Your task to perform on an android device: toggle location history Image 0: 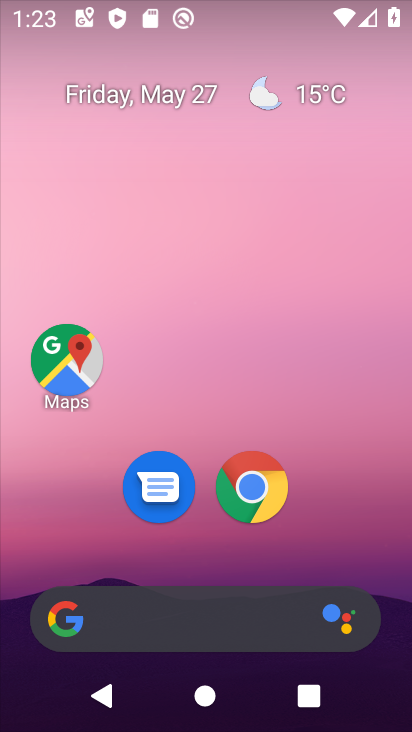
Step 0: drag from (213, 445) to (176, 154)
Your task to perform on an android device: toggle location history Image 1: 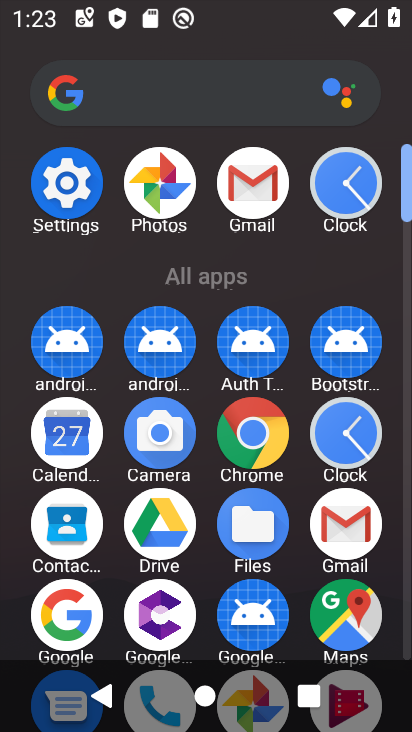
Step 1: click (55, 177)
Your task to perform on an android device: toggle location history Image 2: 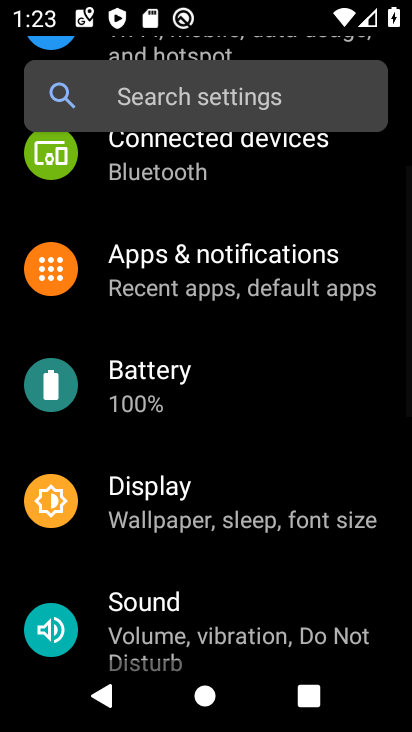
Step 2: click (55, 177)
Your task to perform on an android device: toggle location history Image 3: 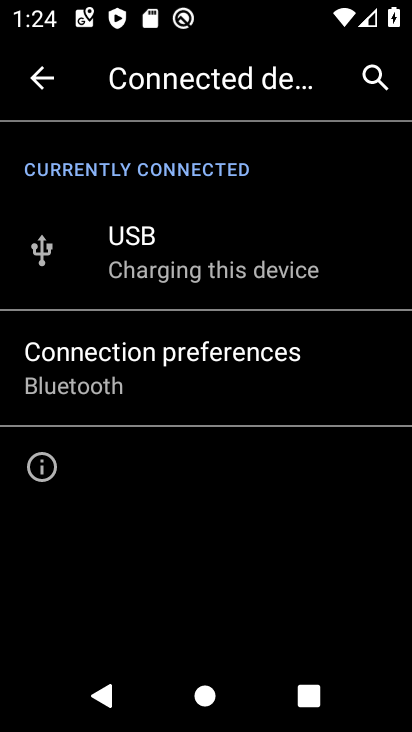
Step 3: click (45, 93)
Your task to perform on an android device: toggle location history Image 4: 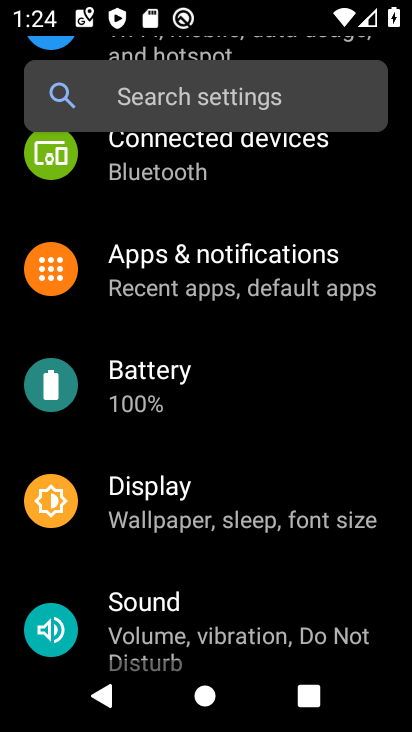
Step 4: drag from (181, 609) to (167, 235)
Your task to perform on an android device: toggle location history Image 5: 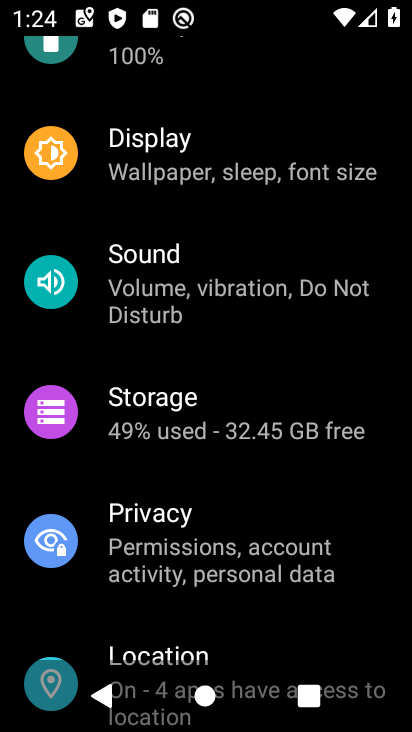
Step 5: click (189, 658)
Your task to perform on an android device: toggle location history Image 6: 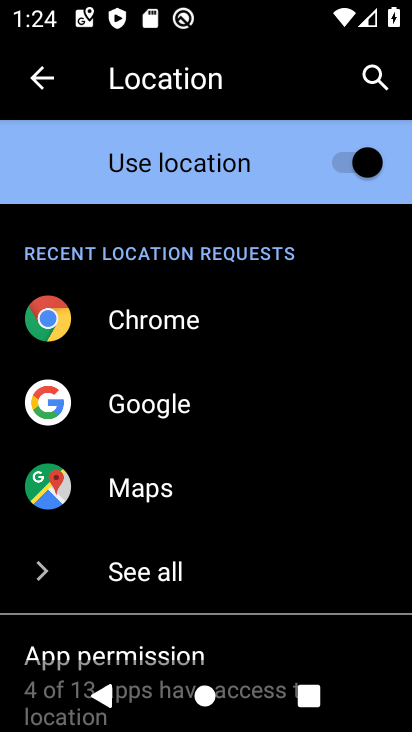
Step 6: click (375, 173)
Your task to perform on an android device: toggle location history Image 7: 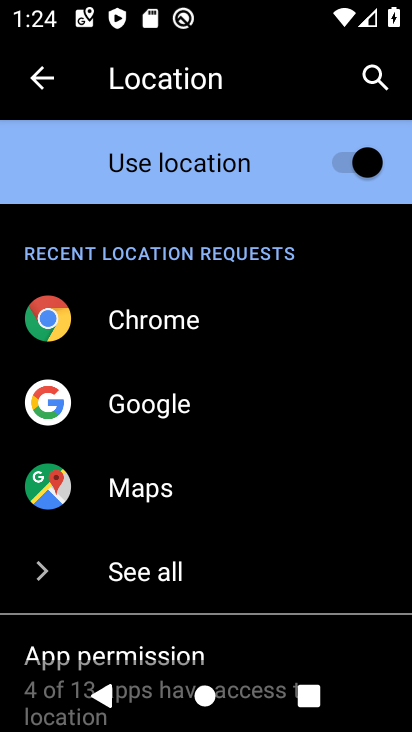
Step 7: click (375, 173)
Your task to perform on an android device: toggle location history Image 8: 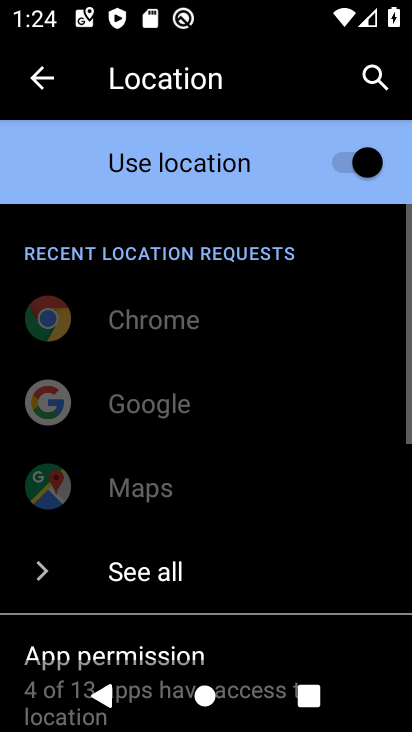
Step 8: click (375, 173)
Your task to perform on an android device: toggle location history Image 9: 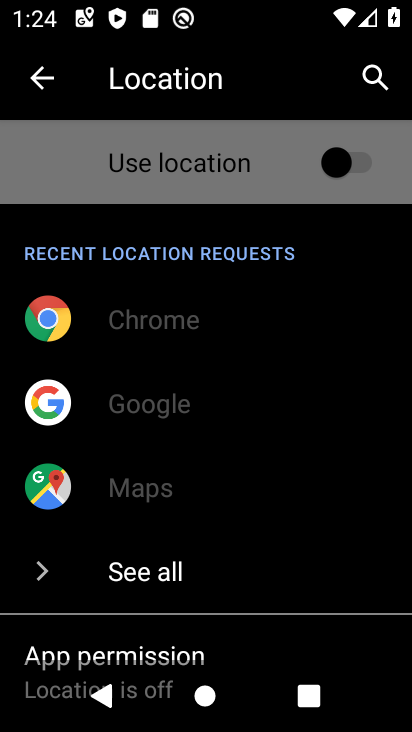
Step 9: click (375, 173)
Your task to perform on an android device: toggle location history Image 10: 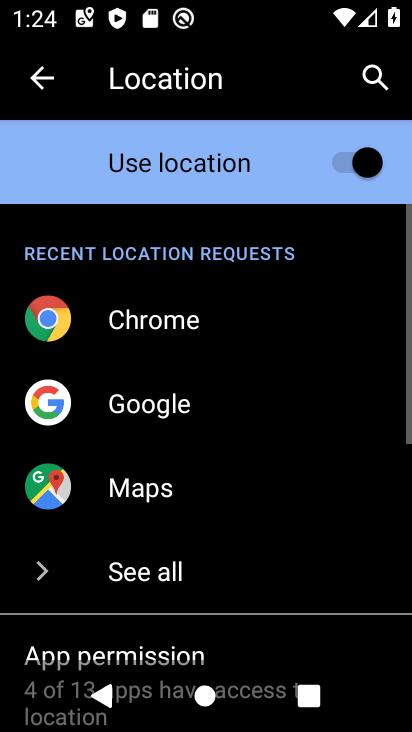
Step 10: task complete